Your task to perform on an android device: Go to eBay Image 0: 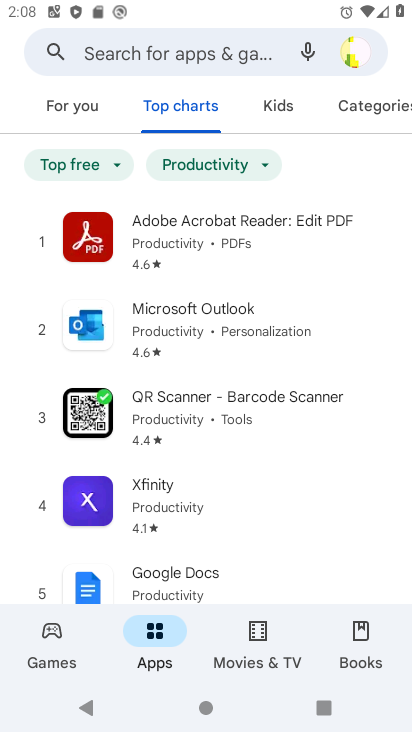
Step 0: press home button
Your task to perform on an android device: Go to eBay Image 1: 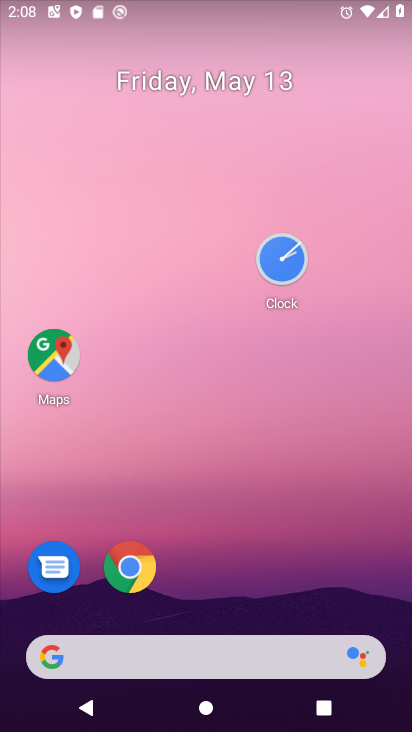
Step 1: drag from (199, 145) to (208, 79)
Your task to perform on an android device: Go to eBay Image 2: 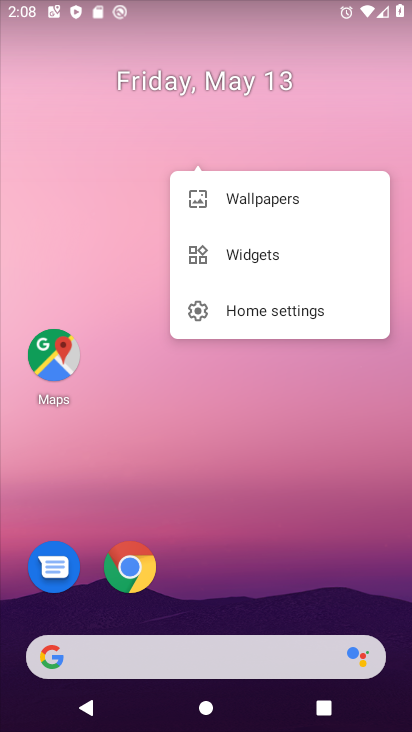
Step 2: click (208, 79)
Your task to perform on an android device: Go to eBay Image 3: 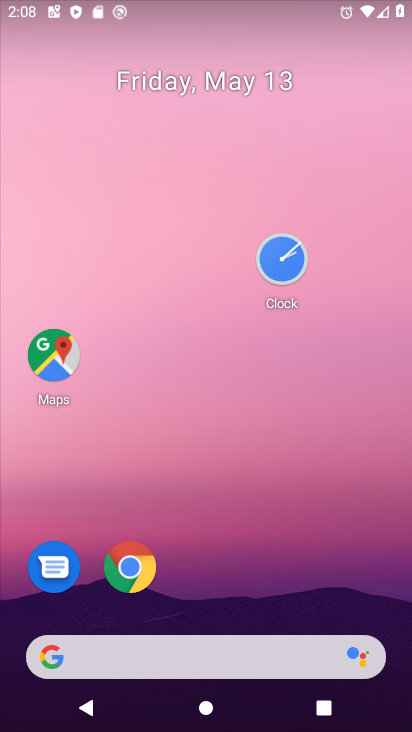
Step 3: click (245, 481)
Your task to perform on an android device: Go to eBay Image 4: 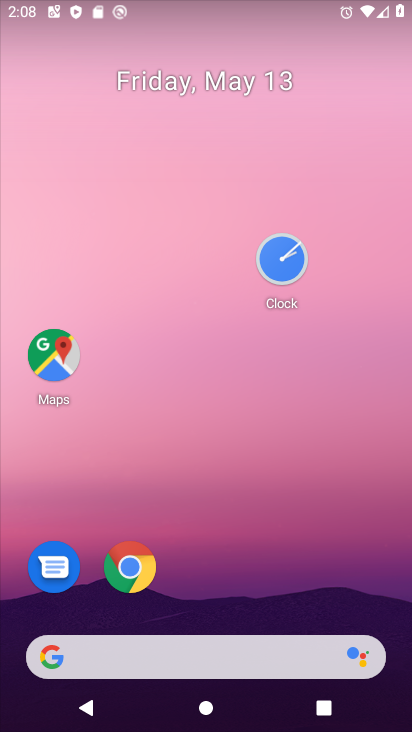
Step 4: drag from (239, 544) to (231, 130)
Your task to perform on an android device: Go to eBay Image 5: 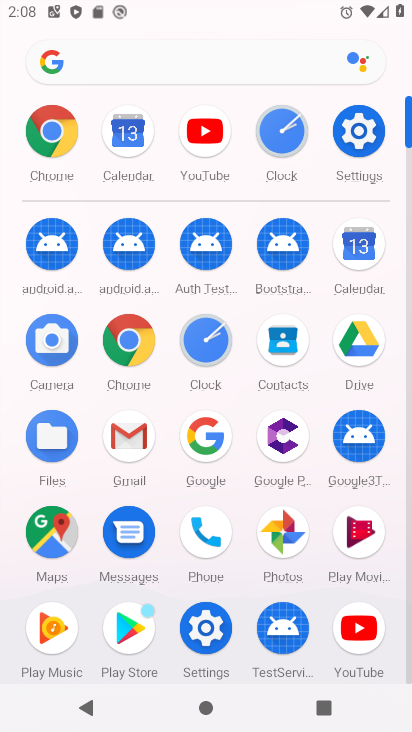
Step 5: click (340, 153)
Your task to perform on an android device: Go to eBay Image 6: 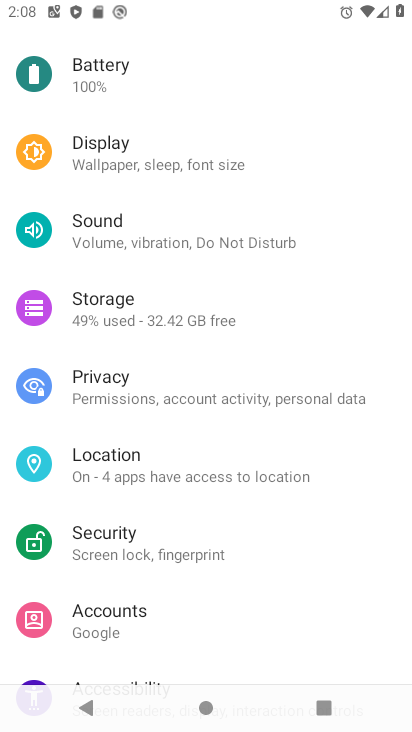
Step 6: press home button
Your task to perform on an android device: Go to eBay Image 7: 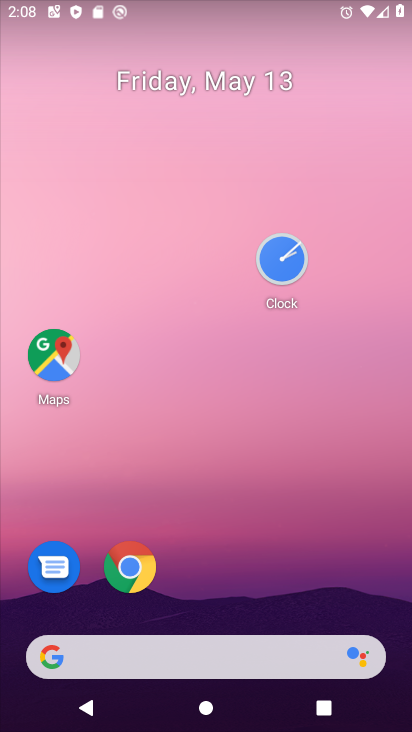
Step 7: click (150, 580)
Your task to perform on an android device: Go to eBay Image 8: 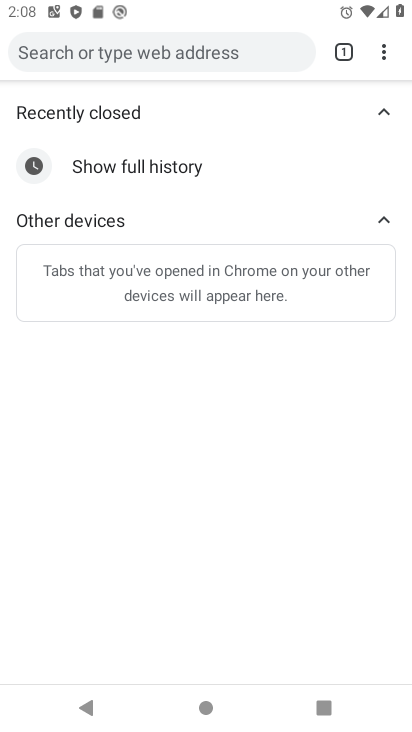
Step 8: click (207, 70)
Your task to perform on an android device: Go to eBay Image 9: 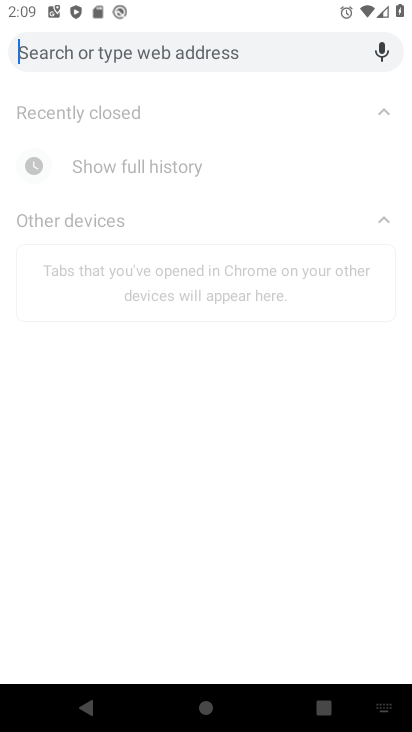
Step 9: type "ebay.com"
Your task to perform on an android device: Go to eBay Image 10: 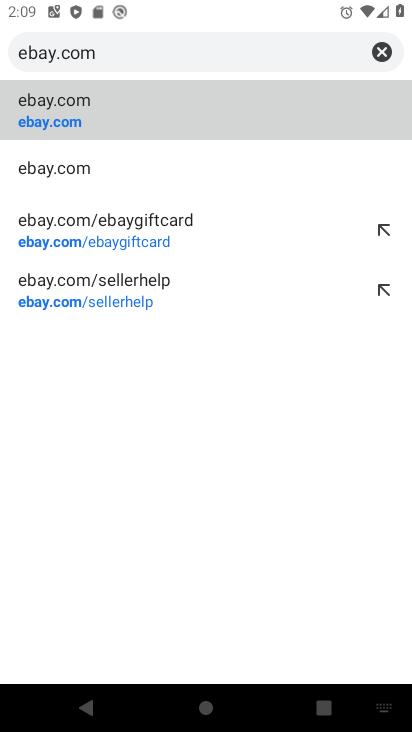
Step 10: click (182, 139)
Your task to perform on an android device: Go to eBay Image 11: 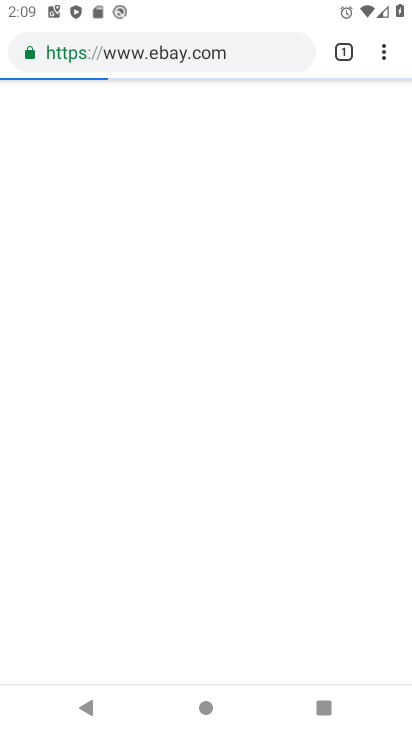
Step 11: task complete